Your task to perform on an android device: Search for Mexican restaurants on Maps Image 0: 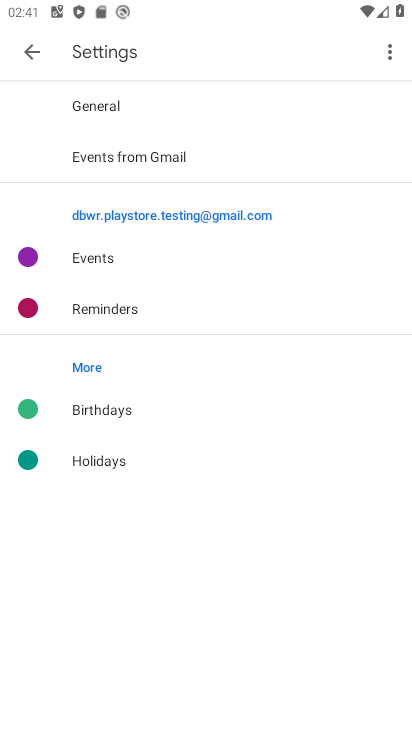
Step 0: press home button
Your task to perform on an android device: Search for Mexican restaurants on Maps Image 1: 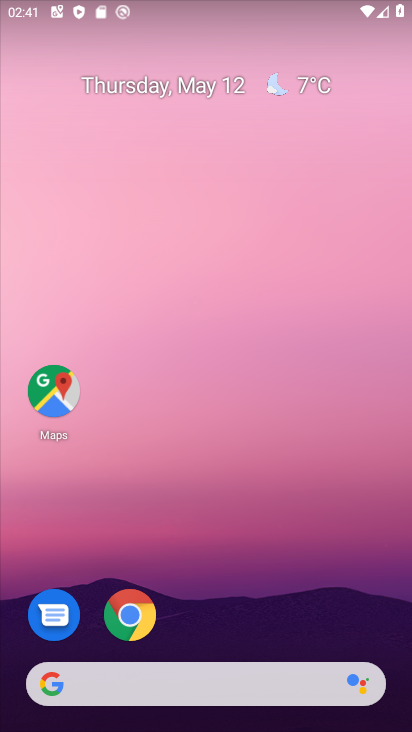
Step 1: click (61, 377)
Your task to perform on an android device: Search for Mexican restaurants on Maps Image 2: 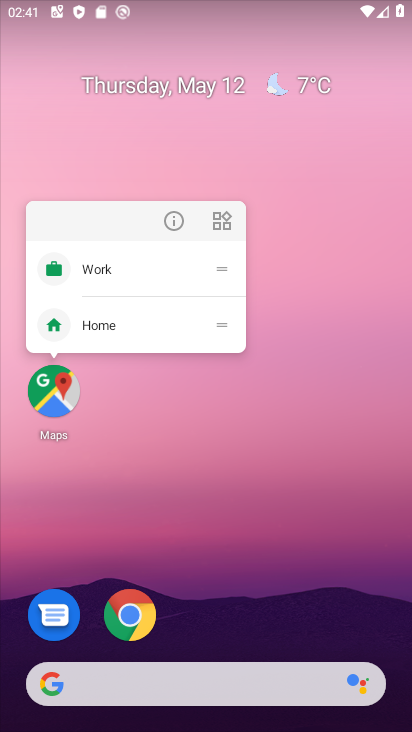
Step 2: click (74, 389)
Your task to perform on an android device: Search for Mexican restaurants on Maps Image 3: 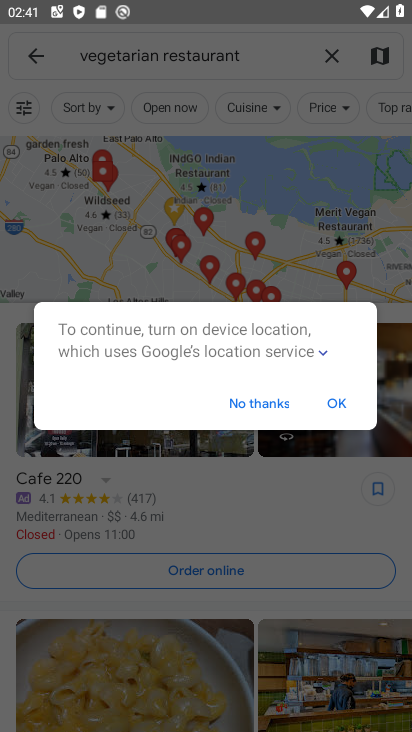
Step 3: click (332, 402)
Your task to perform on an android device: Search for Mexican restaurants on Maps Image 4: 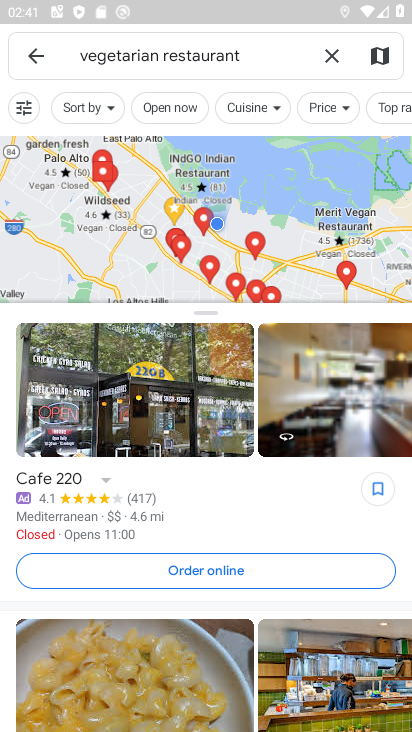
Step 4: click (327, 53)
Your task to perform on an android device: Search for Mexican restaurants on Maps Image 5: 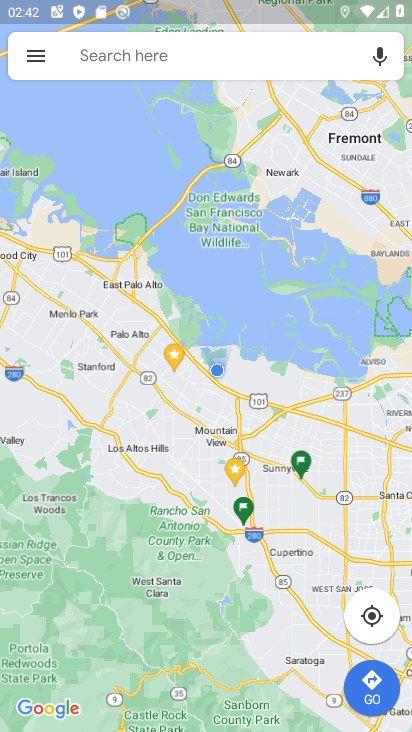
Step 5: click (188, 58)
Your task to perform on an android device: Search for Mexican restaurants on Maps Image 6: 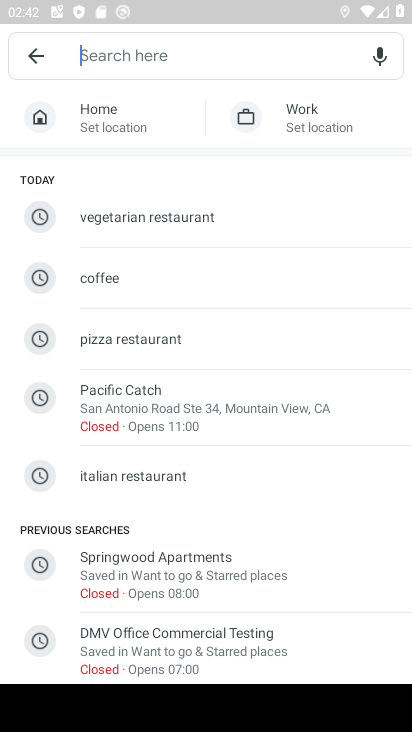
Step 6: type "mexican restaurants"
Your task to perform on an android device: Search for Mexican restaurants on Maps Image 7: 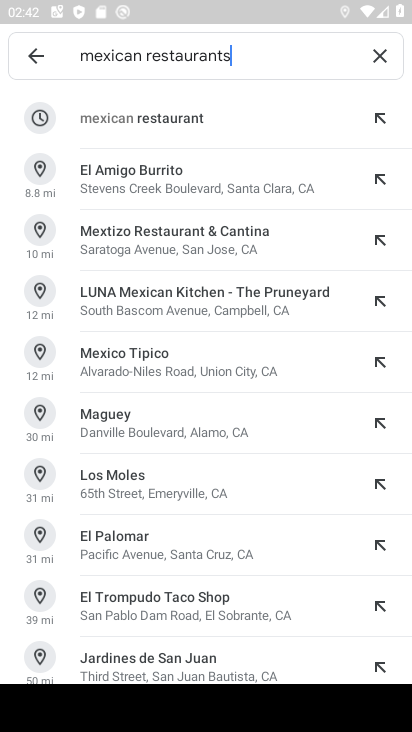
Step 7: click (144, 123)
Your task to perform on an android device: Search for Mexican restaurants on Maps Image 8: 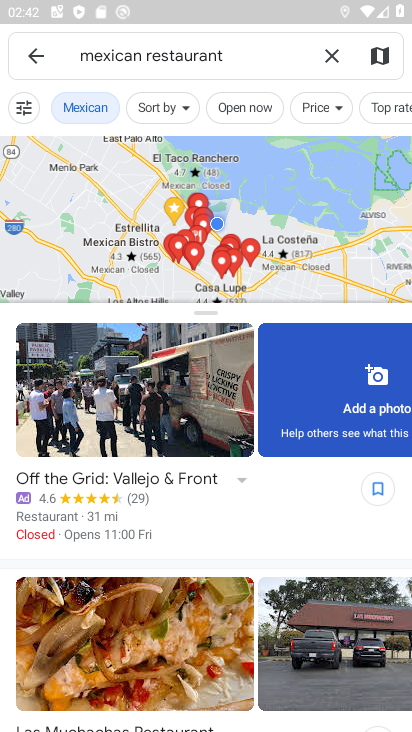
Step 8: task complete